Your task to perform on an android device: clear history in the chrome app Image 0: 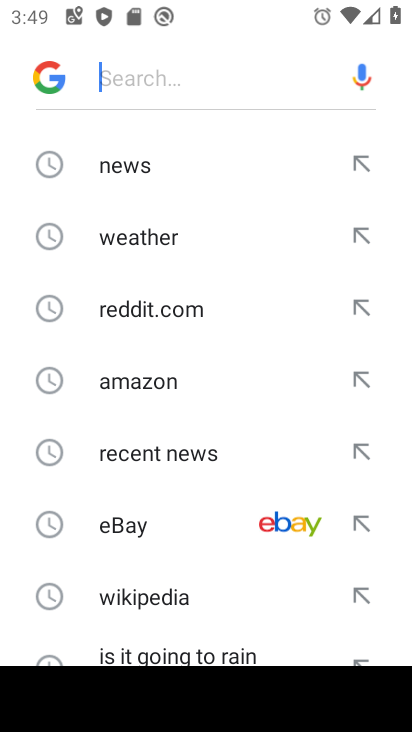
Step 0: press back button
Your task to perform on an android device: clear history in the chrome app Image 1: 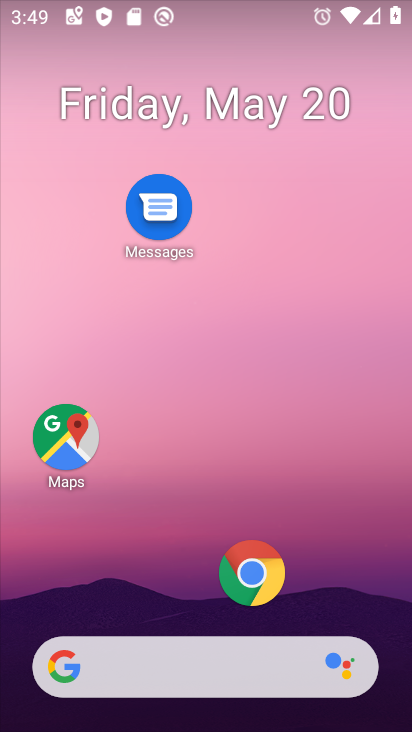
Step 1: click (252, 587)
Your task to perform on an android device: clear history in the chrome app Image 2: 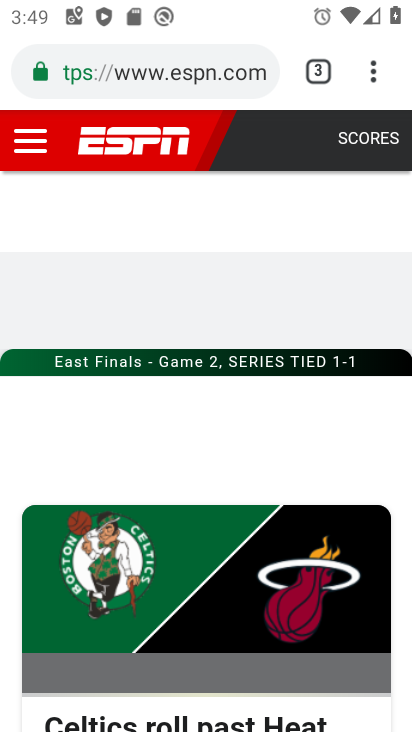
Step 2: click (371, 80)
Your task to perform on an android device: clear history in the chrome app Image 3: 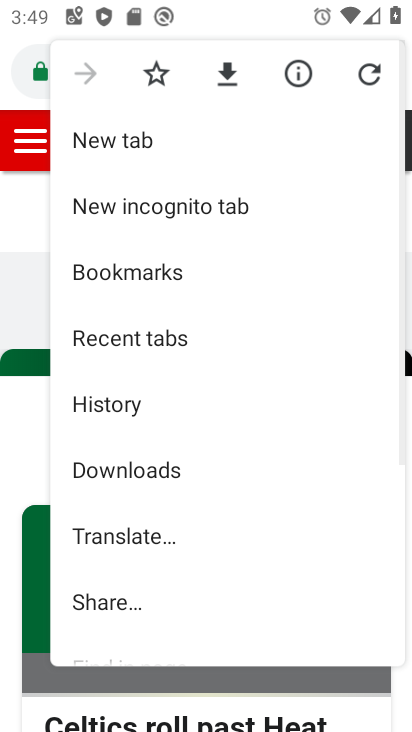
Step 3: click (120, 398)
Your task to perform on an android device: clear history in the chrome app Image 4: 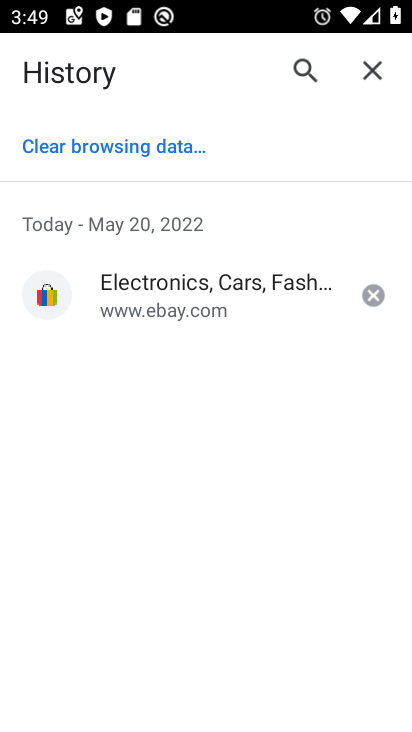
Step 4: click (99, 142)
Your task to perform on an android device: clear history in the chrome app Image 5: 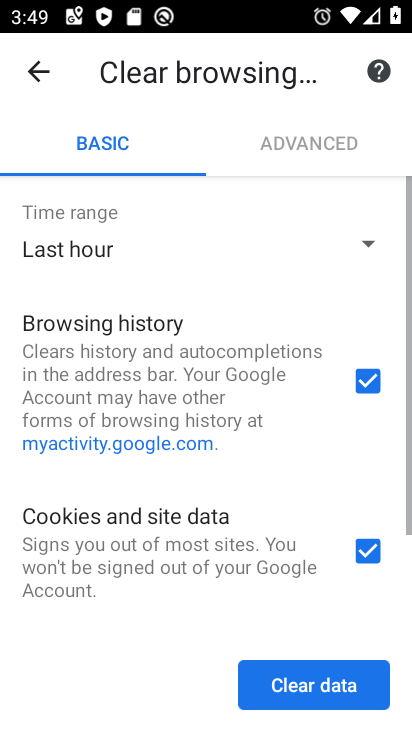
Step 5: click (283, 666)
Your task to perform on an android device: clear history in the chrome app Image 6: 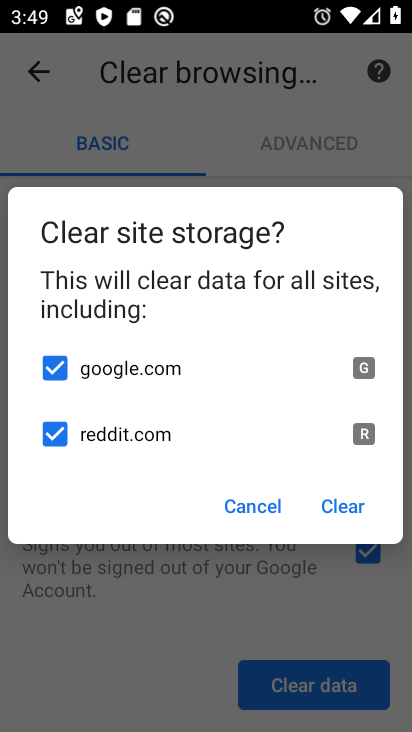
Step 6: click (341, 515)
Your task to perform on an android device: clear history in the chrome app Image 7: 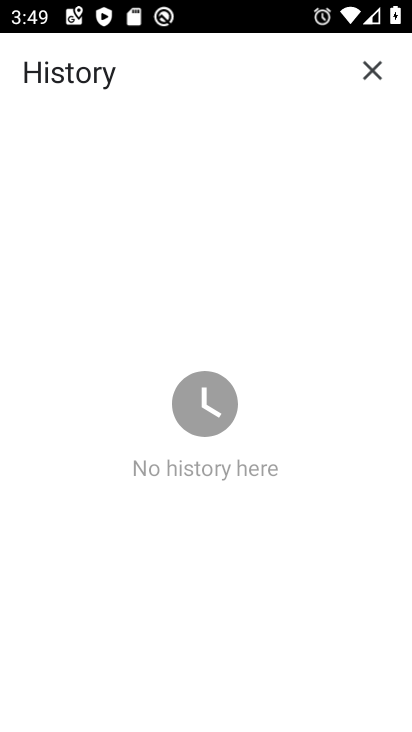
Step 7: task complete